Your task to perform on an android device: turn off smart reply in the gmail app Image 0: 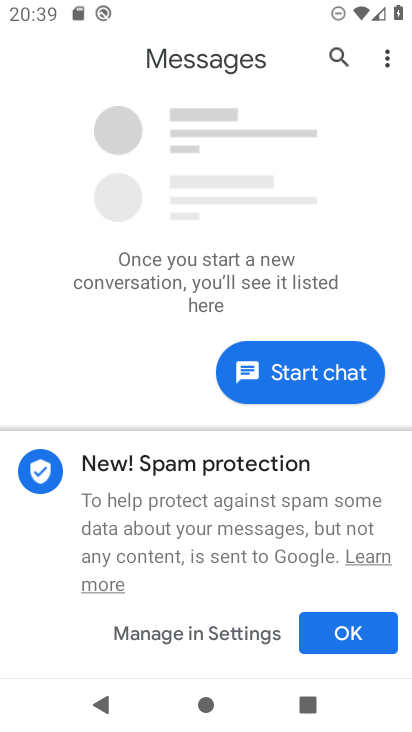
Step 0: press home button
Your task to perform on an android device: turn off smart reply in the gmail app Image 1: 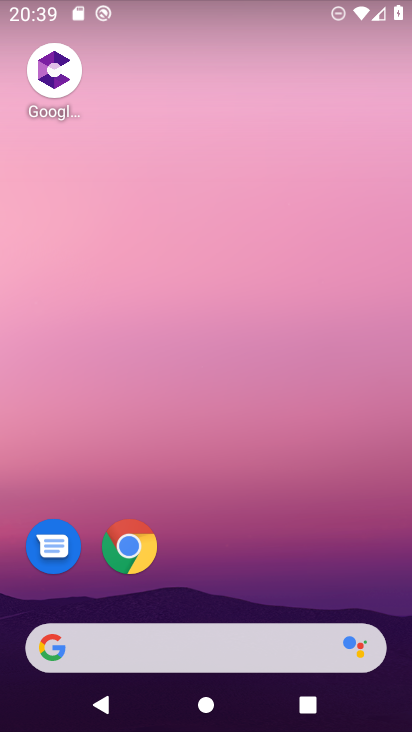
Step 1: drag from (158, 645) to (319, 129)
Your task to perform on an android device: turn off smart reply in the gmail app Image 2: 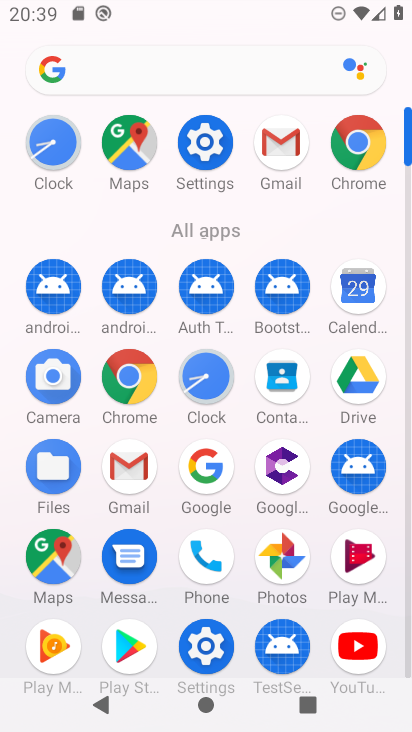
Step 2: click (281, 147)
Your task to perform on an android device: turn off smart reply in the gmail app Image 3: 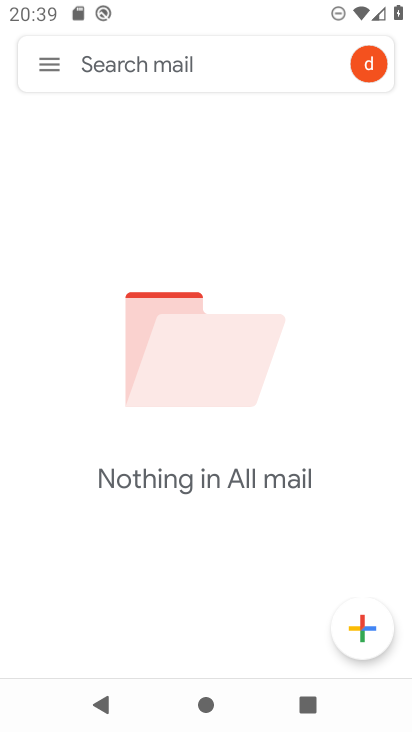
Step 3: click (48, 65)
Your task to perform on an android device: turn off smart reply in the gmail app Image 4: 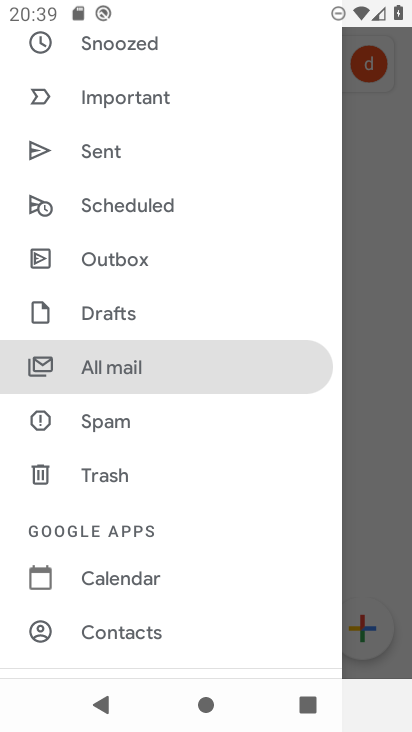
Step 4: drag from (202, 615) to (297, 65)
Your task to perform on an android device: turn off smart reply in the gmail app Image 5: 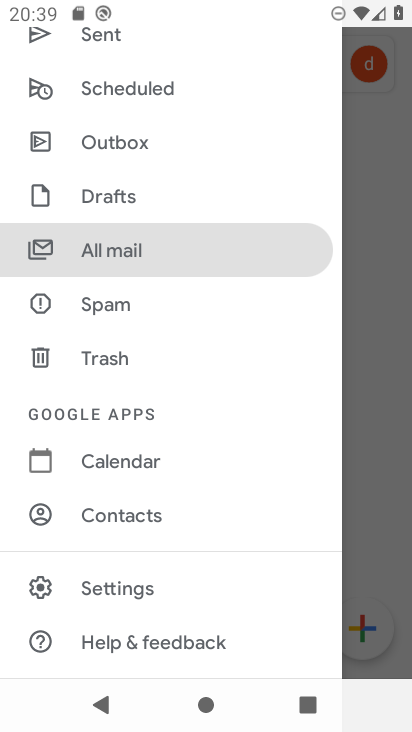
Step 5: click (142, 590)
Your task to perform on an android device: turn off smart reply in the gmail app Image 6: 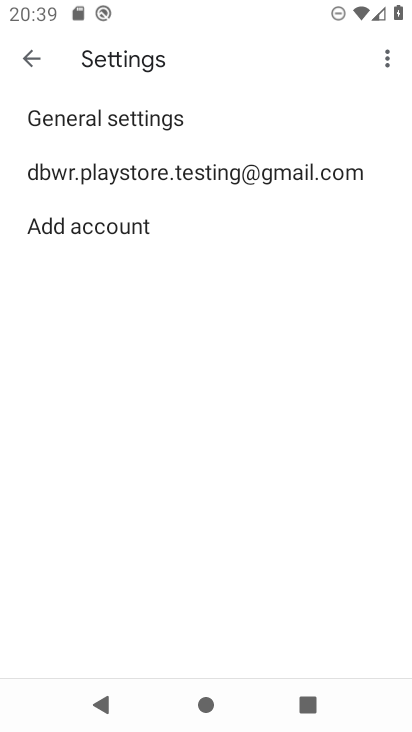
Step 6: click (279, 165)
Your task to perform on an android device: turn off smart reply in the gmail app Image 7: 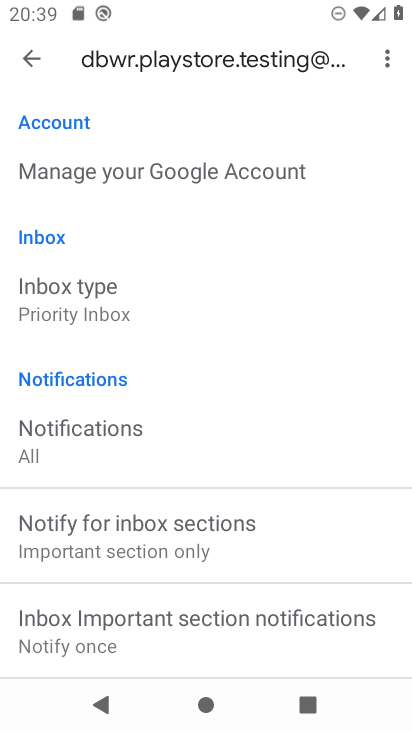
Step 7: drag from (278, 584) to (338, 8)
Your task to perform on an android device: turn off smart reply in the gmail app Image 8: 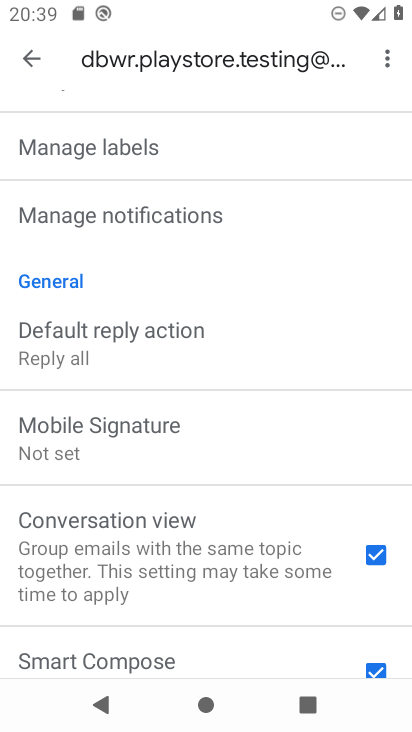
Step 8: drag from (238, 560) to (351, 133)
Your task to perform on an android device: turn off smart reply in the gmail app Image 9: 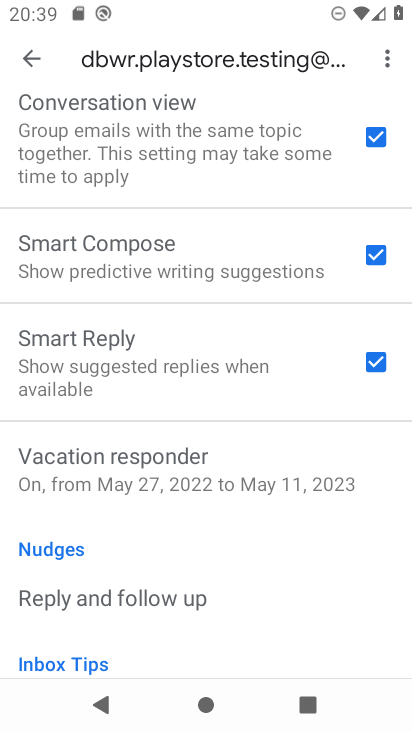
Step 9: click (377, 353)
Your task to perform on an android device: turn off smart reply in the gmail app Image 10: 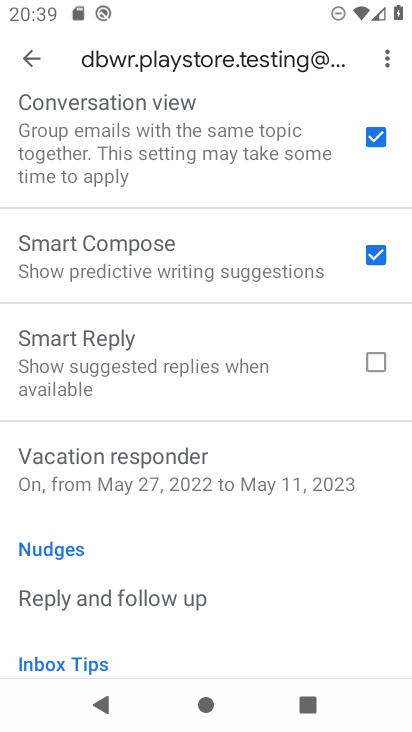
Step 10: task complete